Your task to perform on an android device: set the stopwatch Image 0: 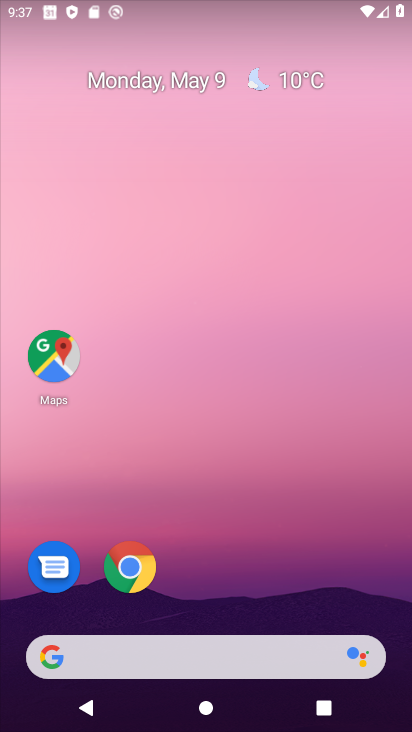
Step 0: drag from (217, 542) to (267, 34)
Your task to perform on an android device: set the stopwatch Image 1: 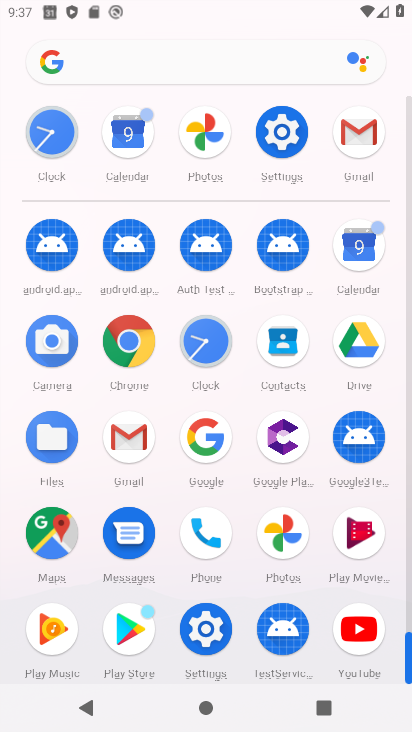
Step 1: click (200, 330)
Your task to perform on an android device: set the stopwatch Image 2: 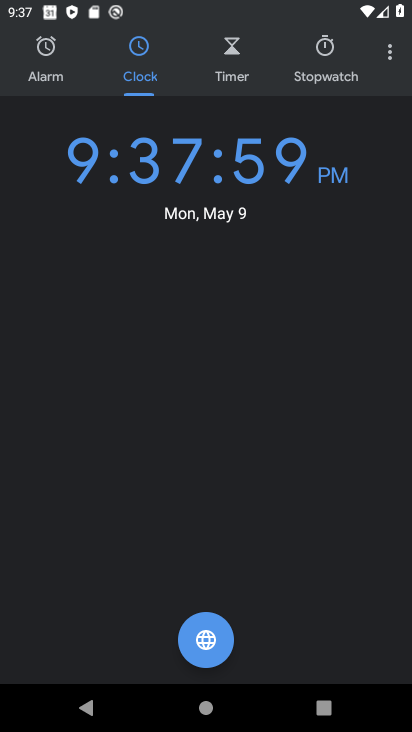
Step 2: click (337, 40)
Your task to perform on an android device: set the stopwatch Image 3: 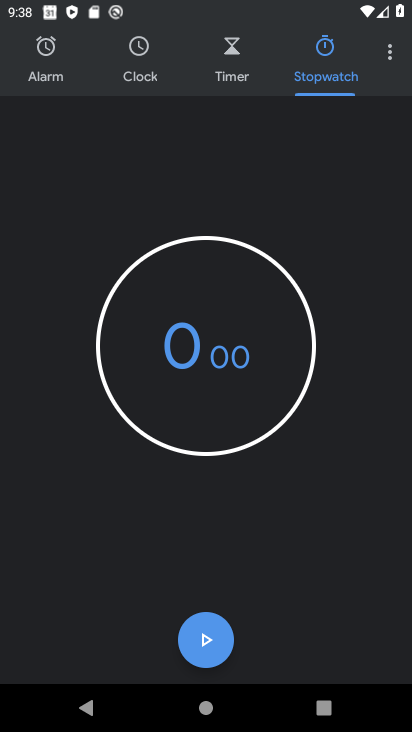
Step 3: task complete